Your task to perform on an android device: turn on priority inbox in the gmail app Image 0: 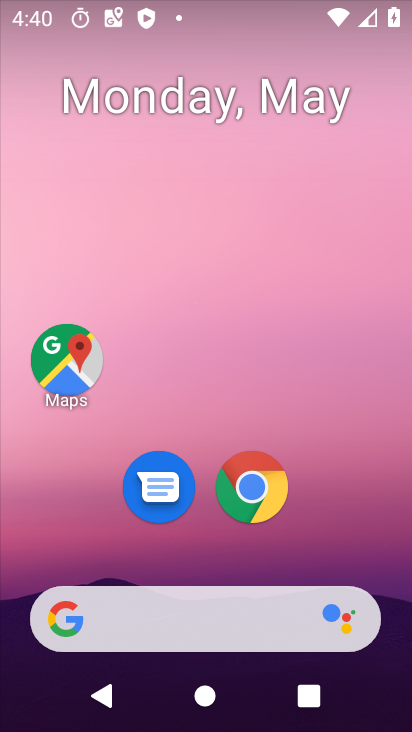
Step 0: click (296, 197)
Your task to perform on an android device: turn on priority inbox in the gmail app Image 1: 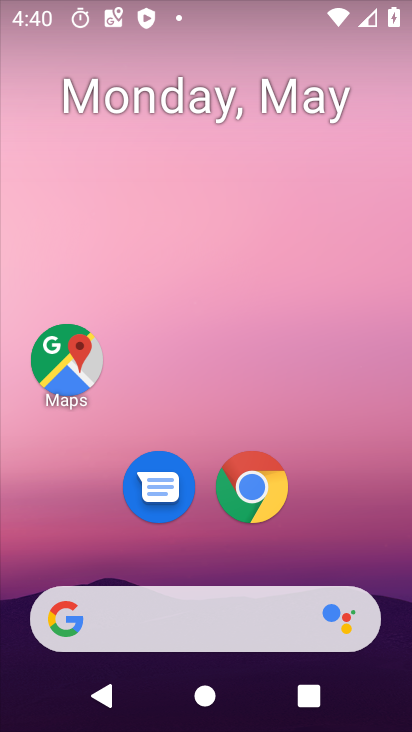
Step 1: click (190, 230)
Your task to perform on an android device: turn on priority inbox in the gmail app Image 2: 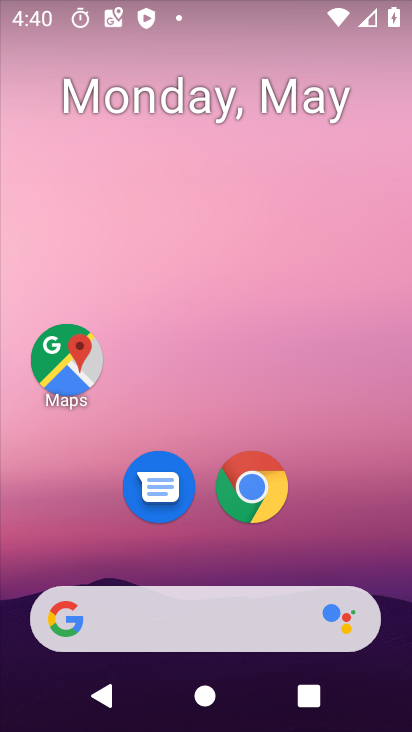
Step 2: drag from (214, 553) to (204, 37)
Your task to perform on an android device: turn on priority inbox in the gmail app Image 3: 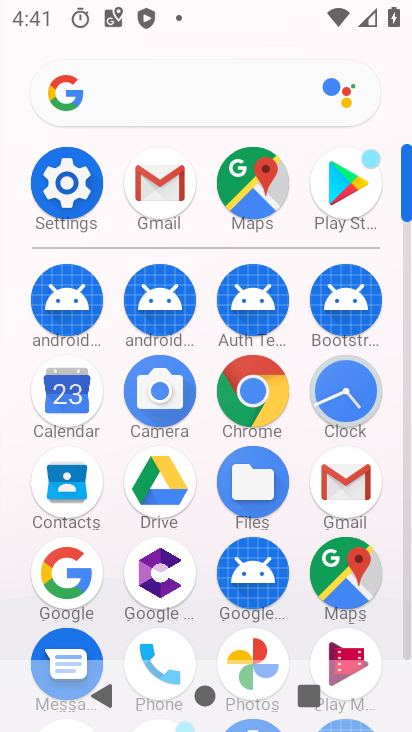
Step 3: click (343, 474)
Your task to perform on an android device: turn on priority inbox in the gmail app Image 4: 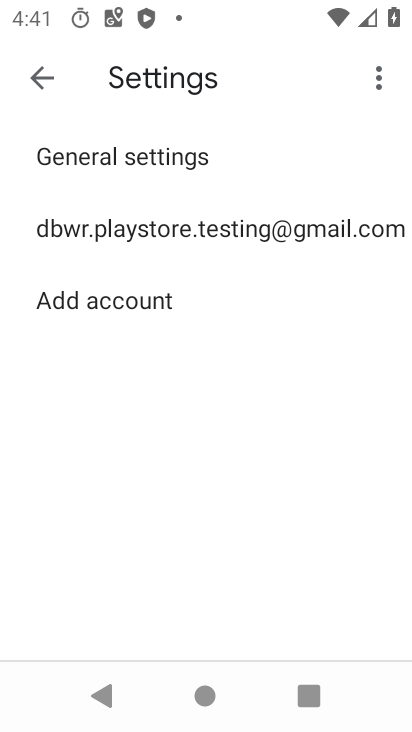
Step 4: click (117, 234)
Your task to perform on an android device: turn on priority inbox in the gmail app Image 5: 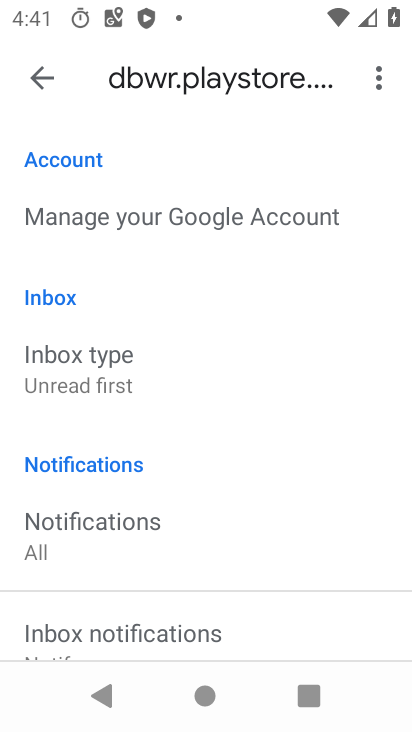
Step 5: click (108, 380)
Your task to perform on an android device: turn on priority inbox in the gmail app Image 6: 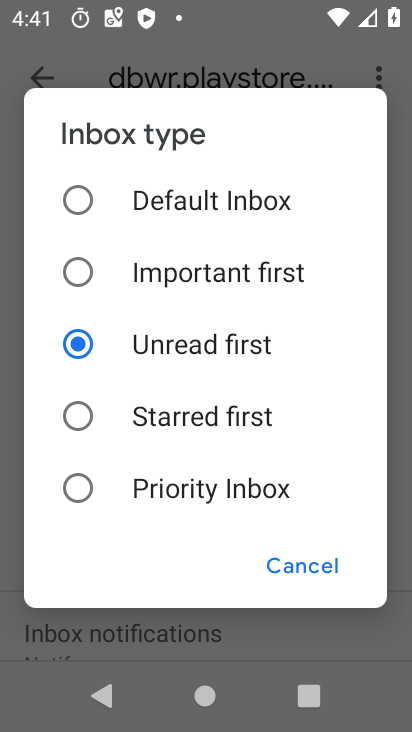
Step 6: click (171, 480)
Your task to perform on an android device: turn on priority inbox in the gmail app Image 7: 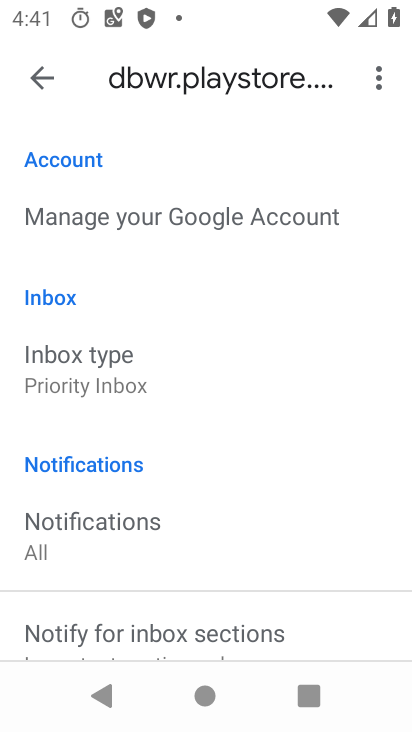
Step 7: task complete